Your task to perform on an android device: delete browsing data in the chrome app Image 0: 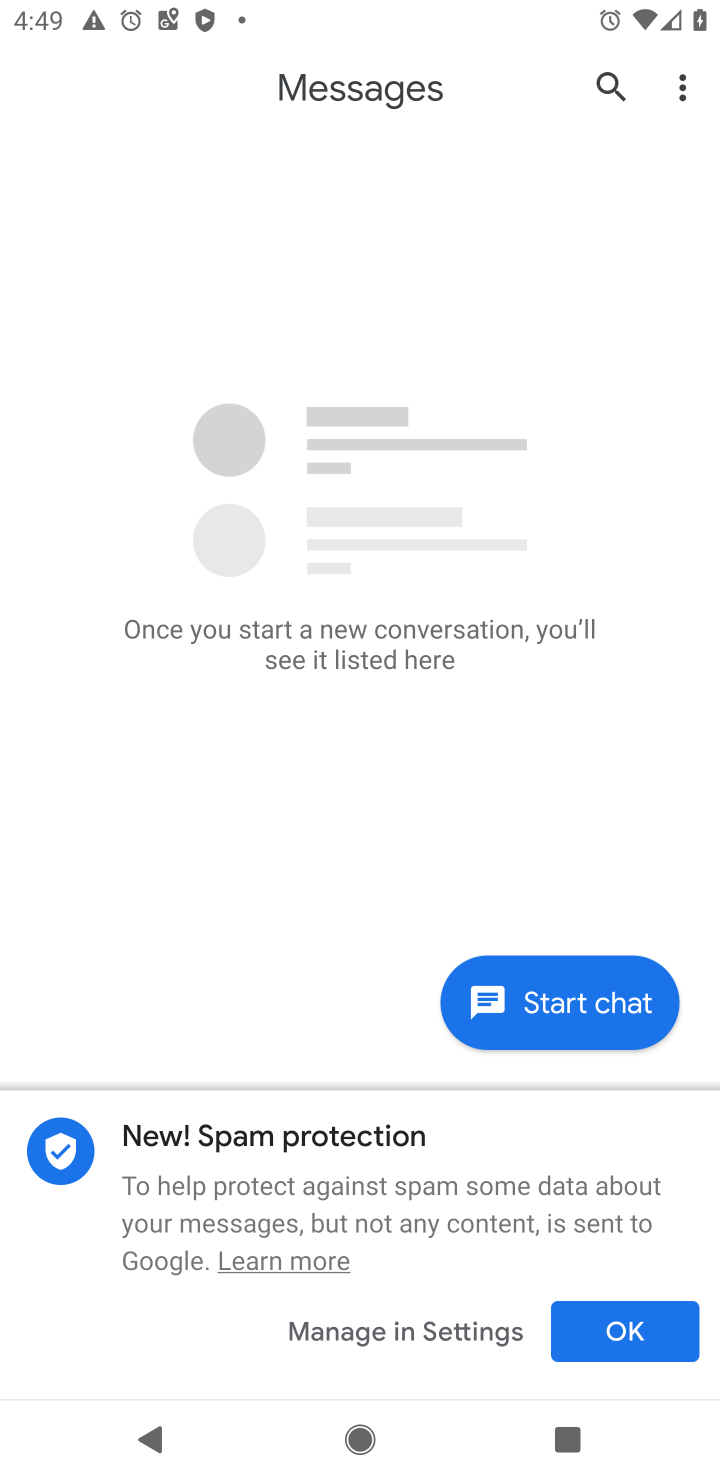
Step 0: press home button
Your task to perform on an android device: delete browsing data in the chrome app Image 1: 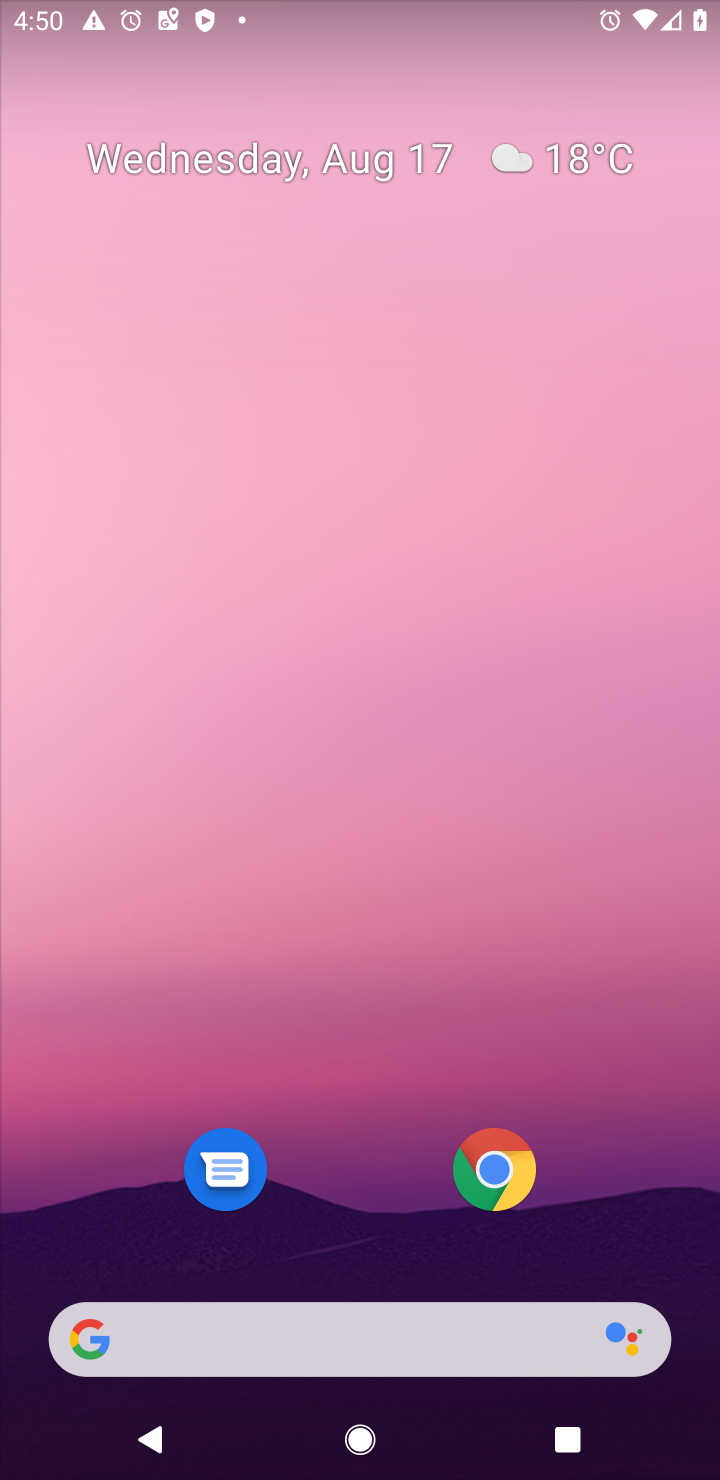
Step 1: drag from (394, 1240) to (477, 186)
Your task to perform on an android device: delete browsing data in the chrome app Image 2: 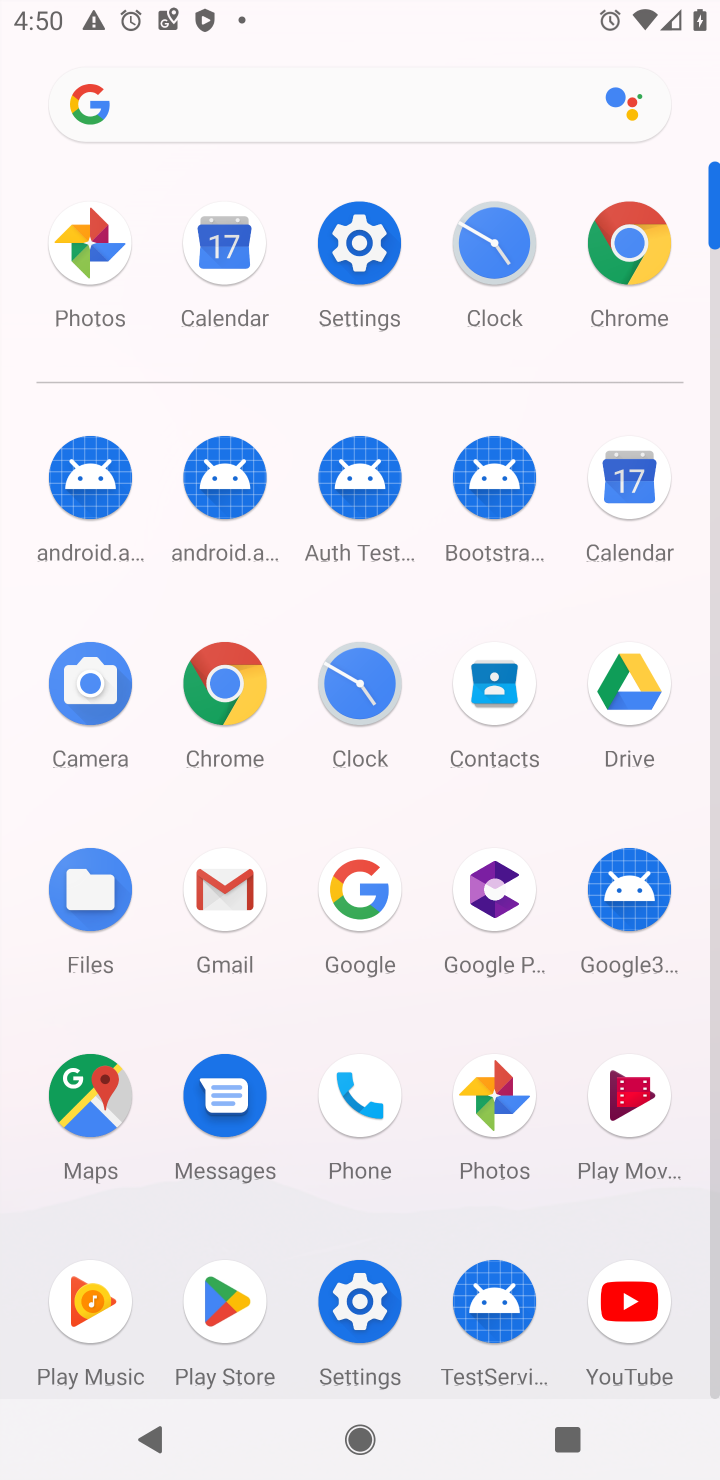
Step 2: click (203, 689)
Your task to perform on an android device: delete browsing data in the chrome app Image 3: 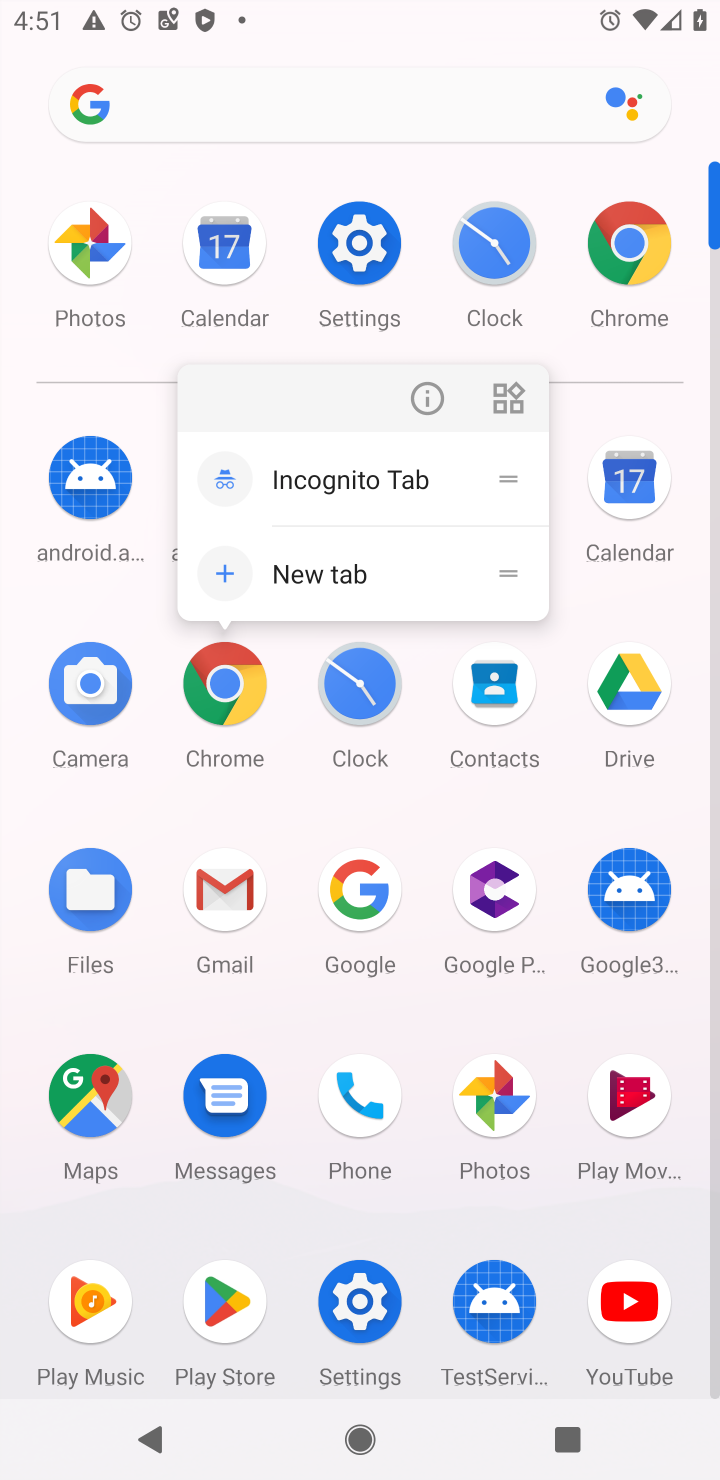
Step 3: click (648, 234)
Your task to perform on an android device: delete browsing data in the chrome app Image 4: 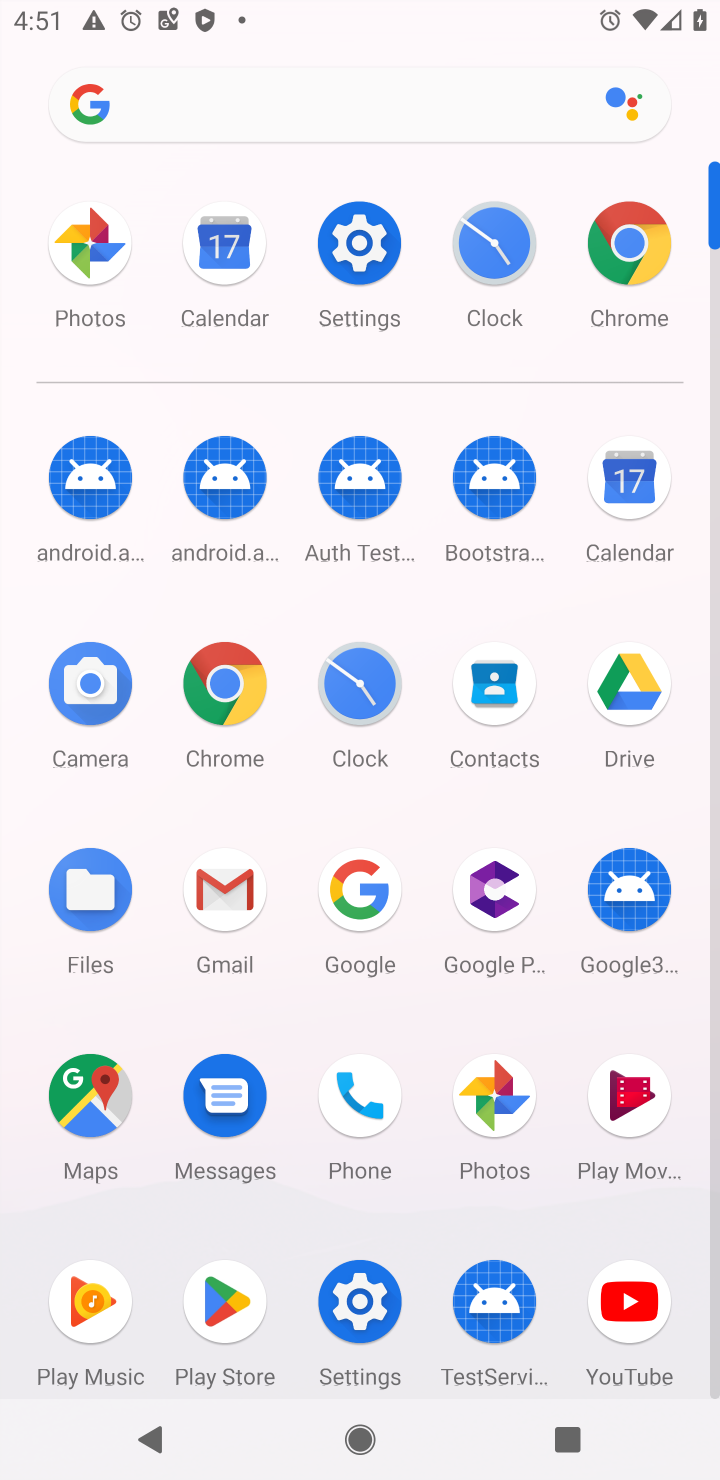
Step 4: click (228, 680)
Your task to perform on an android device: delete browsing data in the chrome app Image 5: 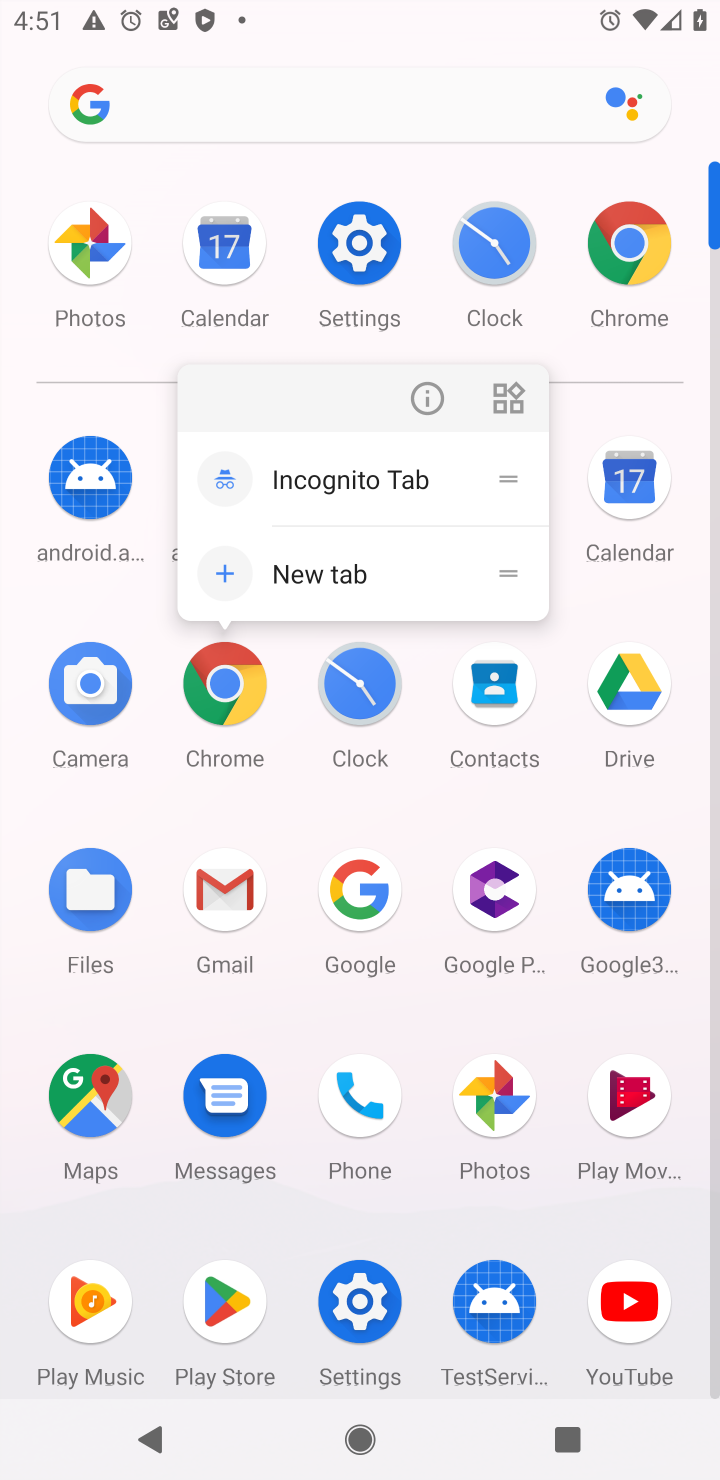
Step 5: click (224, 679)
Your task to perform on an android device: delete browsing data in the chrome app Image 6: 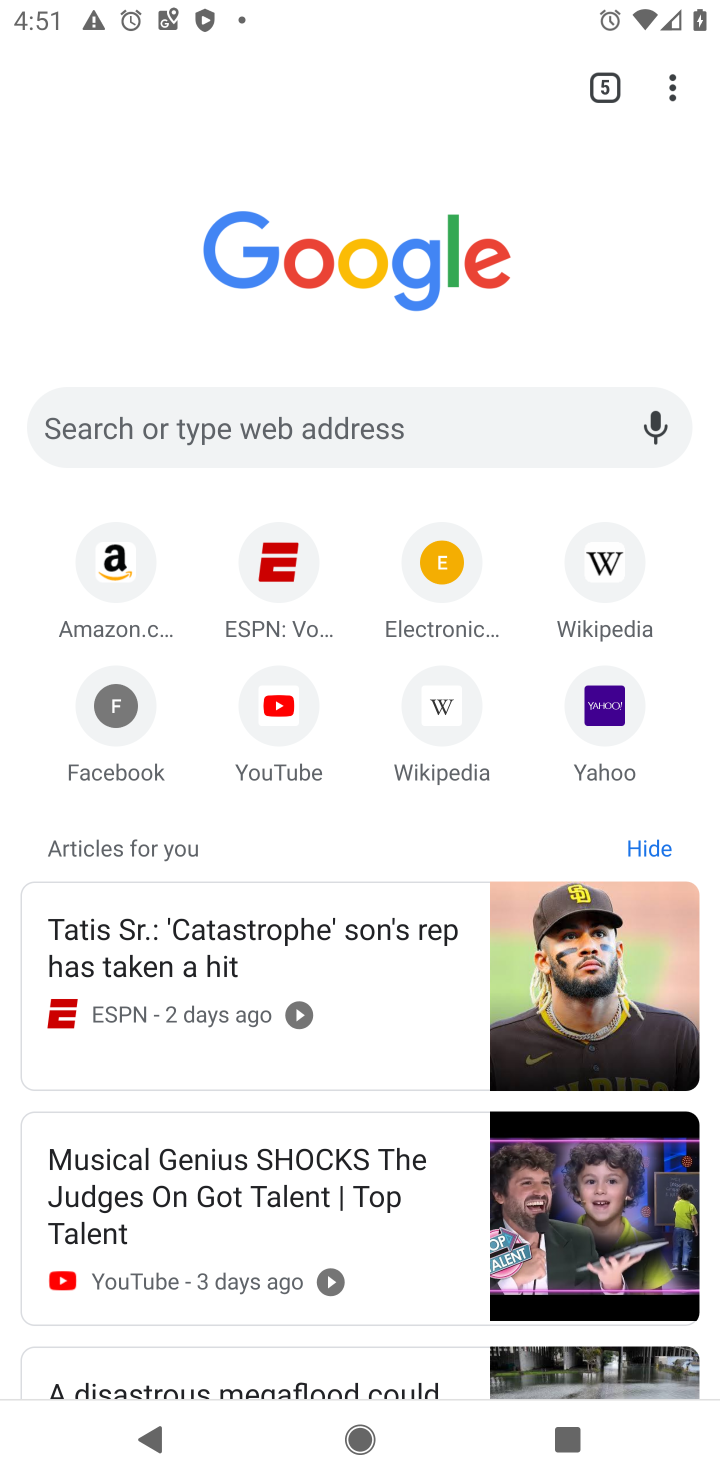
Step 6: drag from (670, 82) to (337, 837)
Your task to perform on an android device: delete browsing data in the chrome app Image 7: 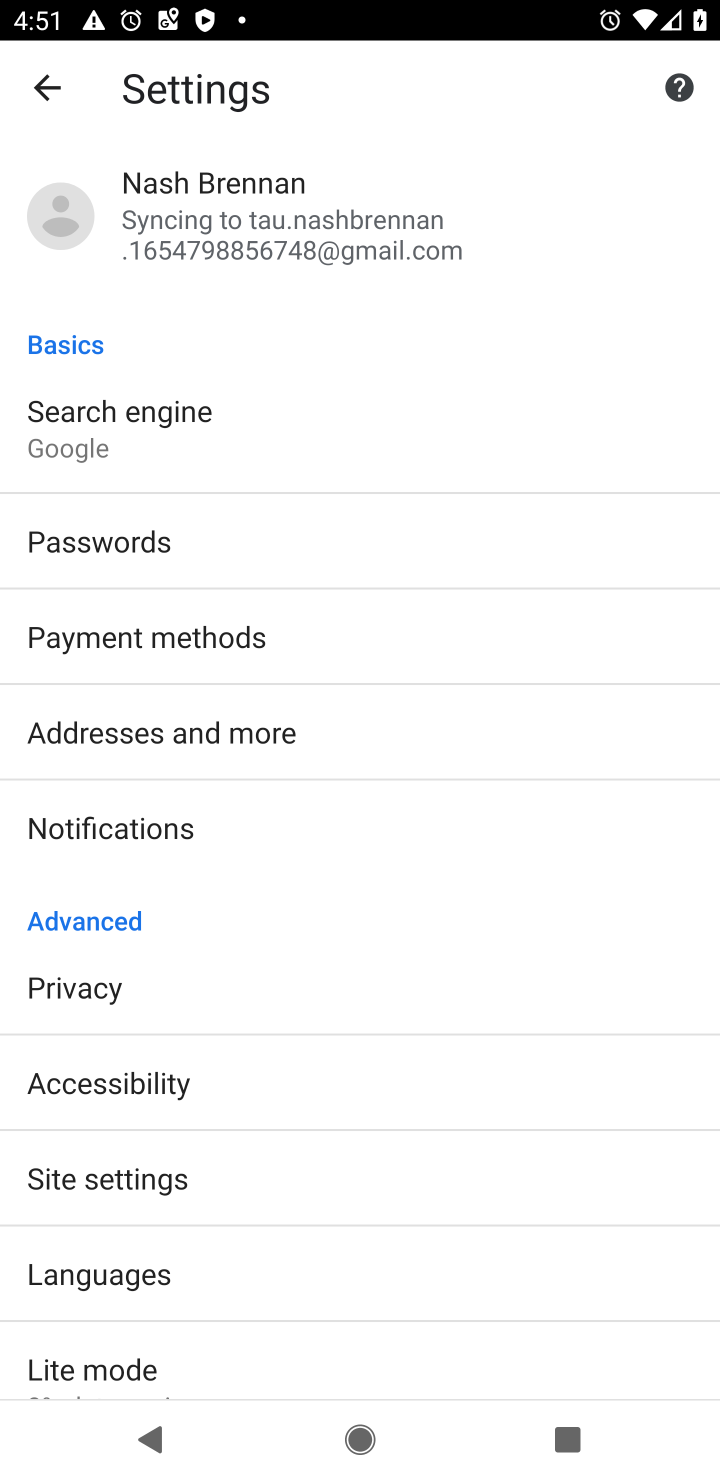
Step 7: click (102, 992)
Your task to perform on an android device: delete browsing data in the chrome app Image 8: 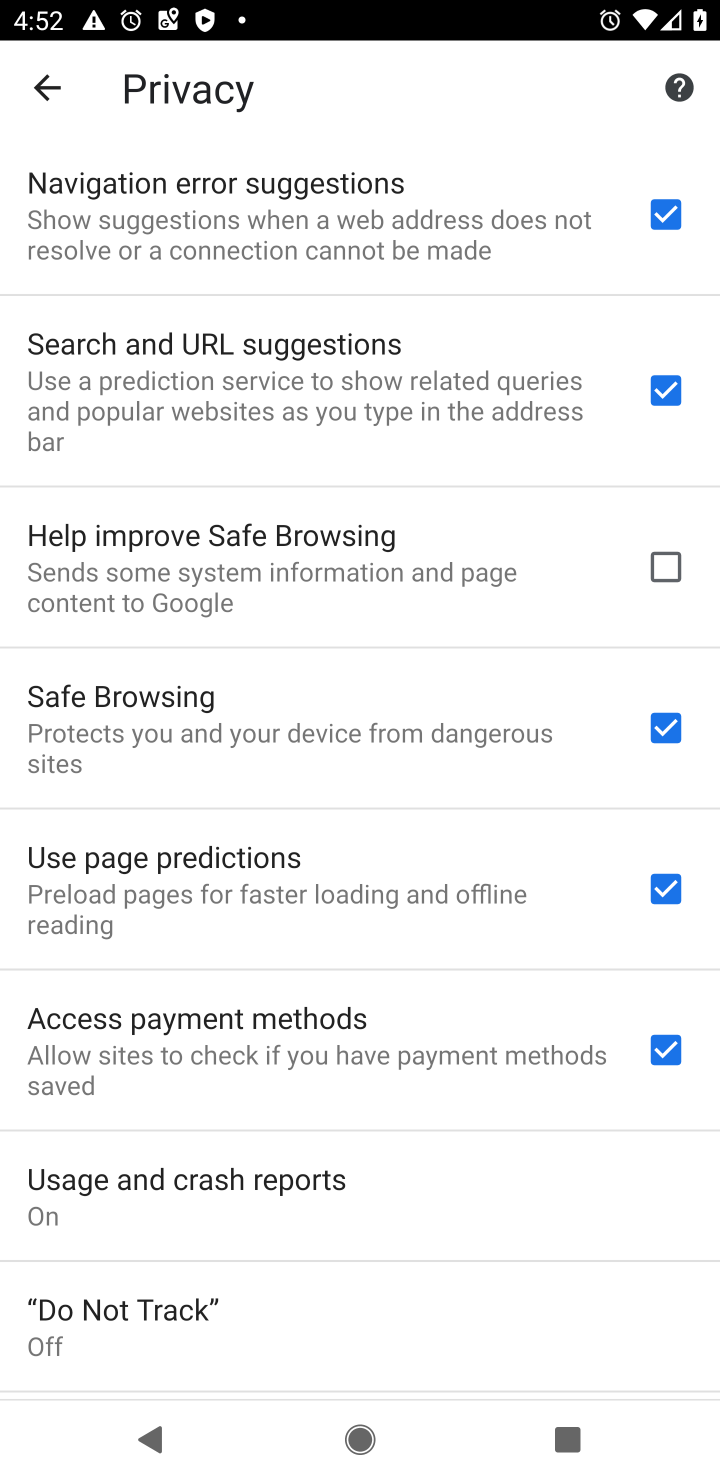
Step 8: drag from (204, 1270) to (256, 347)
Your task to perform on an android device: delete browsing data in the chrome app Image 9: 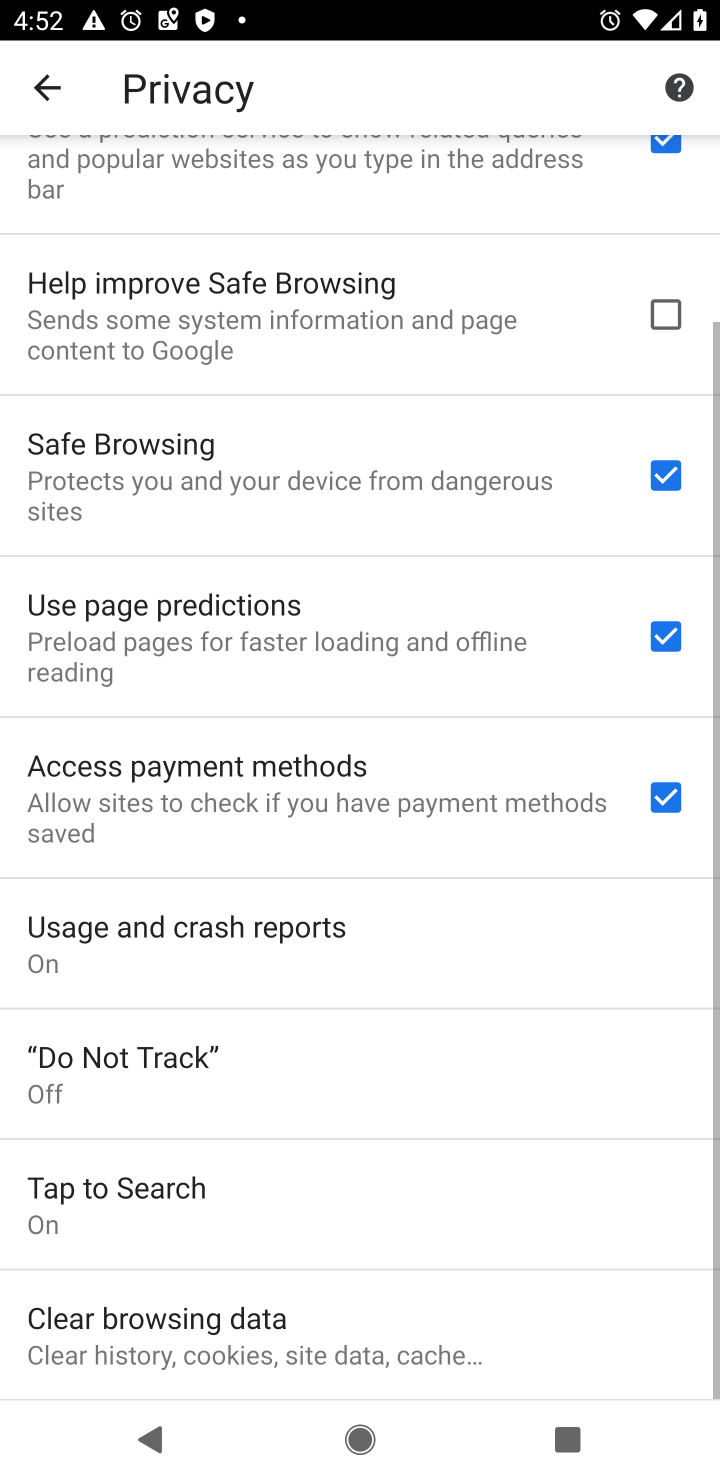
Step 9: click (80, 1313)
Your task to perform on an android device: delete browsing data in the chrome app Image 10: 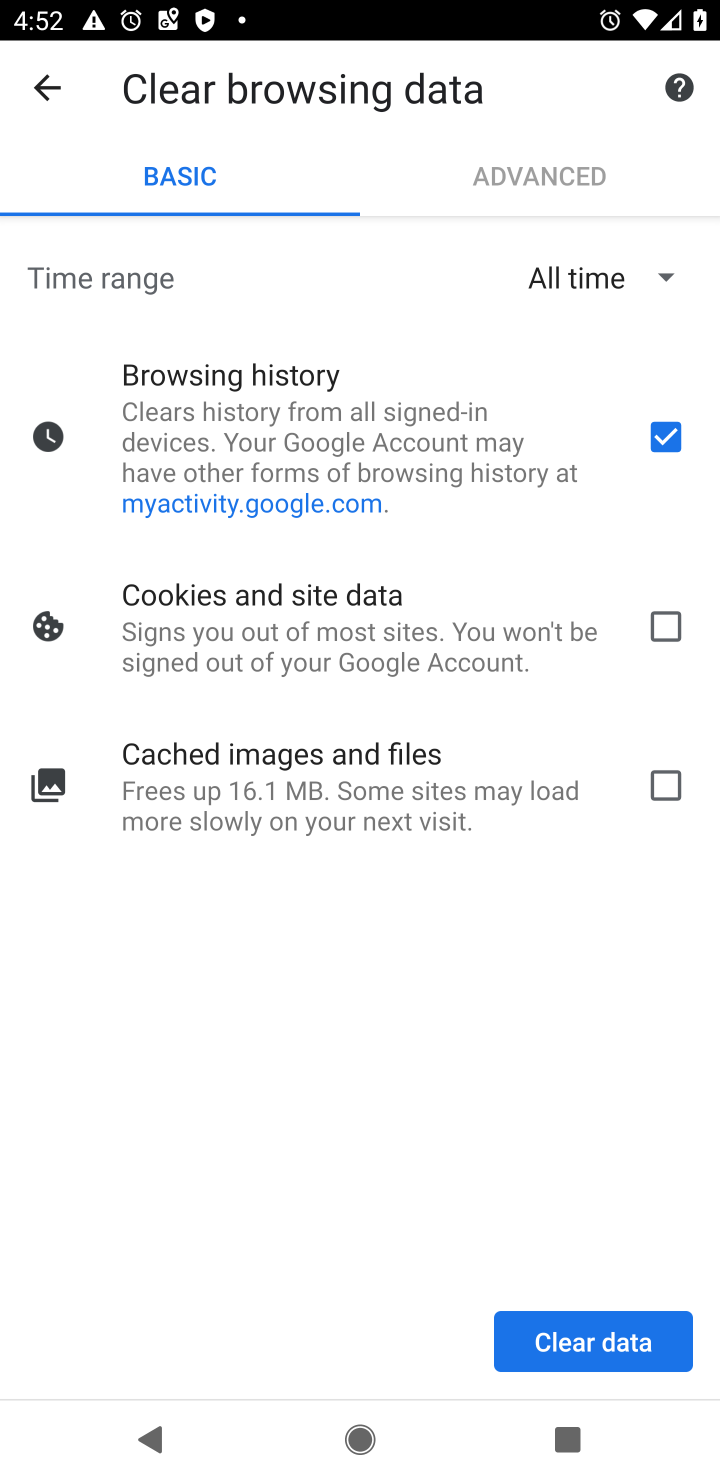
Step 10: click (604, 1351)
Your task to perform on an android device: delete browsing data in the chrome app Image 11: 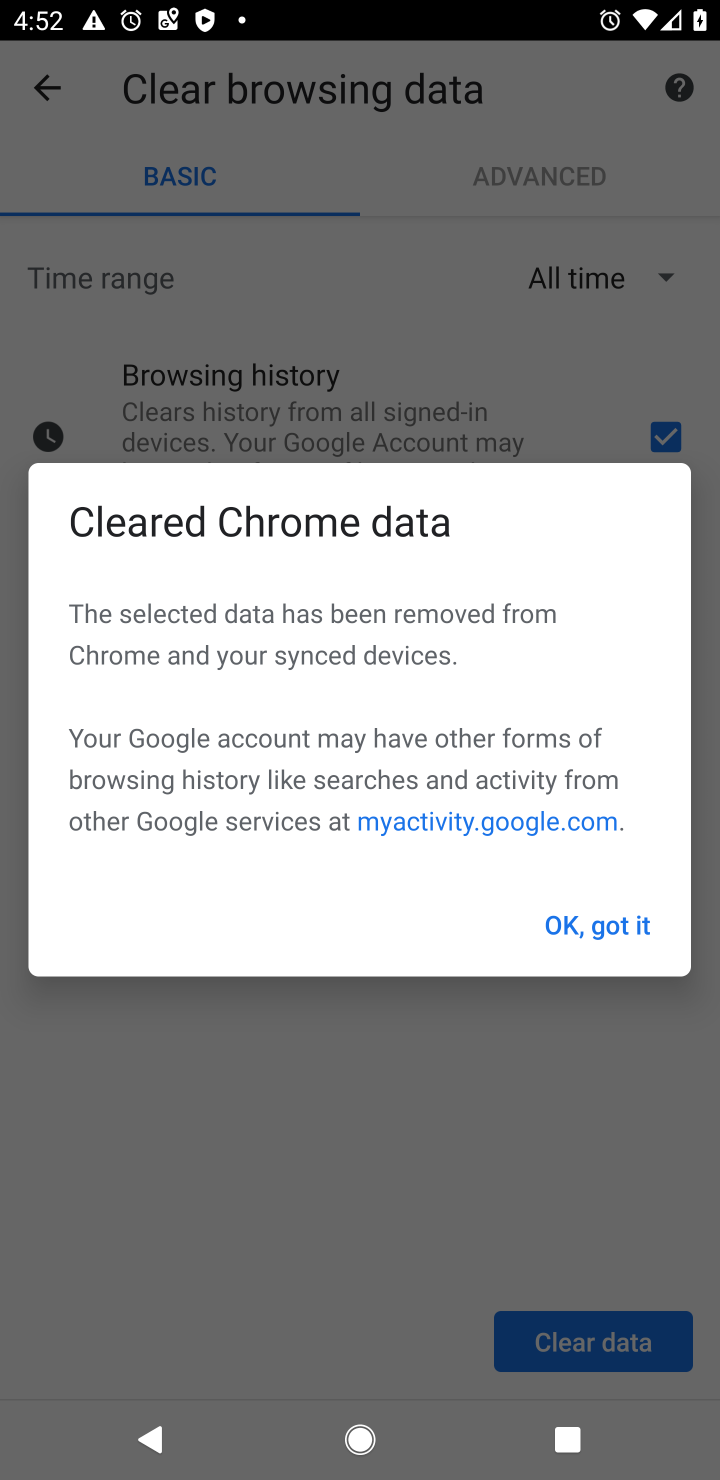
Step 11: click (589, 929)
Your task to perform on an android device: delete browsing data in the chrome app Image 12: 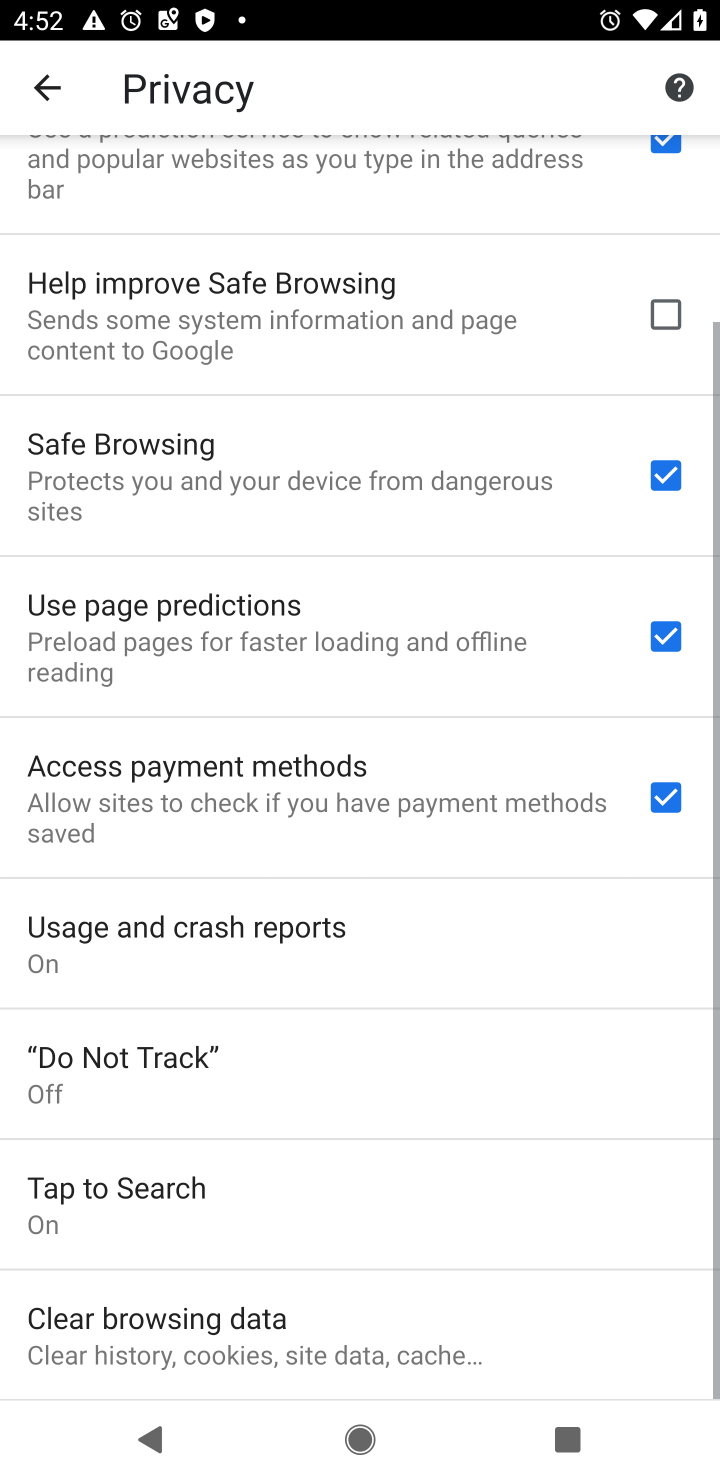
Step 12: task complete